Your task to perform on an android device: remove spam from my inbox in the gmail app Image 0: 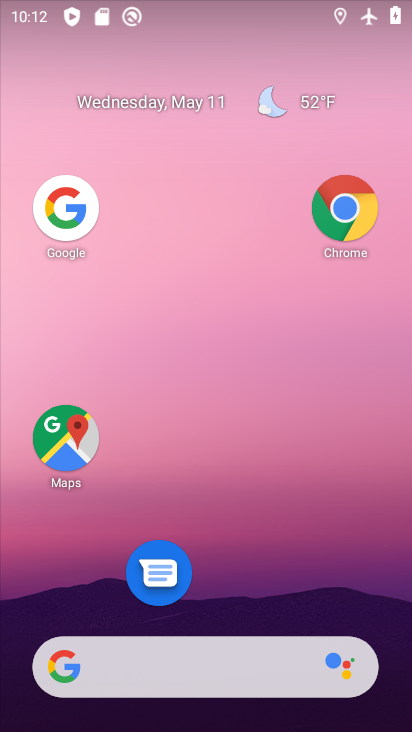
Step 0: drag from (195, 625) to (113, 9)
Your task to perform on an android device: remove spam from my inbox in the gmail app Image 1: 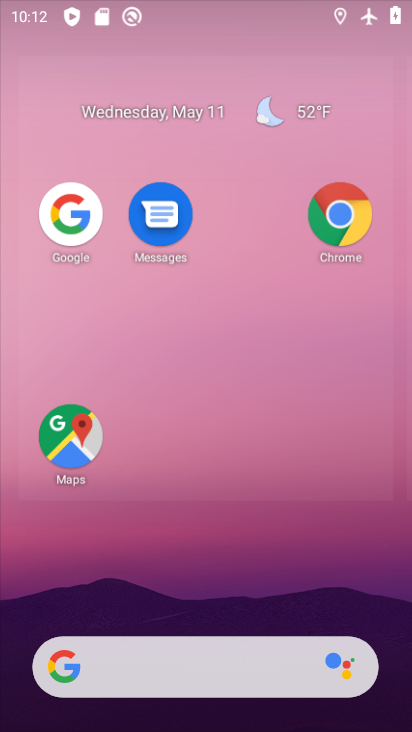
Step 1: click (237, 636)
Your task to perform on an android device: remove spam from my inbox in the gmail app Image 2: 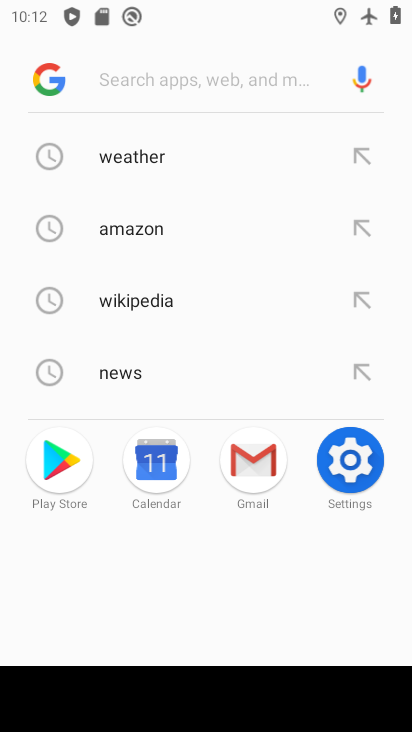
Step 2: press home button
Your task to perform on an android device: remove spam from my inbox in the gmail app Image 3: 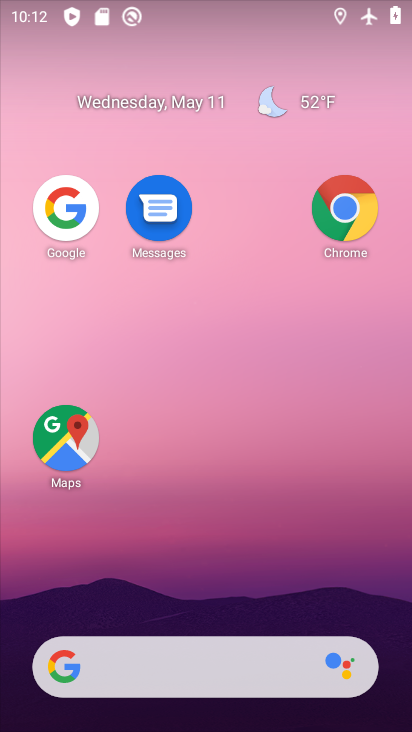
Step 3: drag from (207, 616) to (391, 406)
Your task to perform on an android device: remove spam from my inbox in the gmail app Image 4: 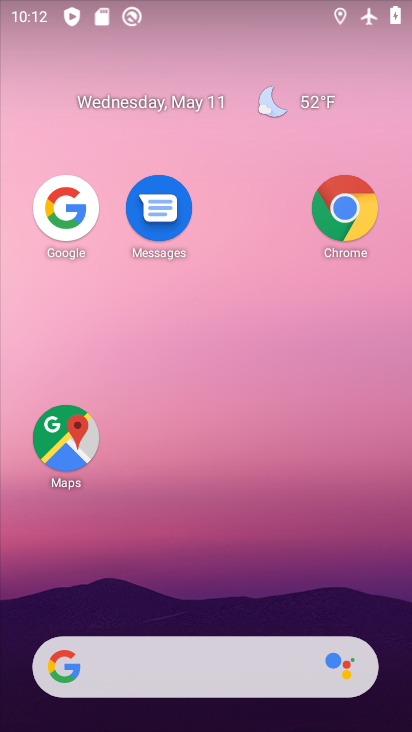
Step 4: drag from (236, 626) to (299, 9)
Your task to perform on an android device: remove spam from my inbox in the gmail app Image 5: 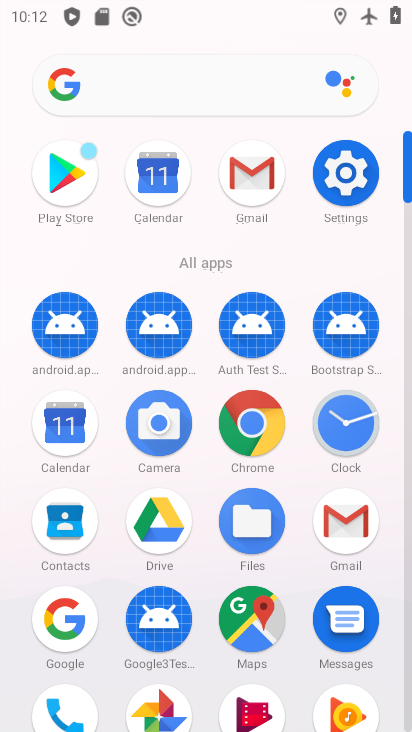
Step 5: click (365, 517)
Your task to perform on an android device: remove spam from my inbox in the gmail app Image 6: 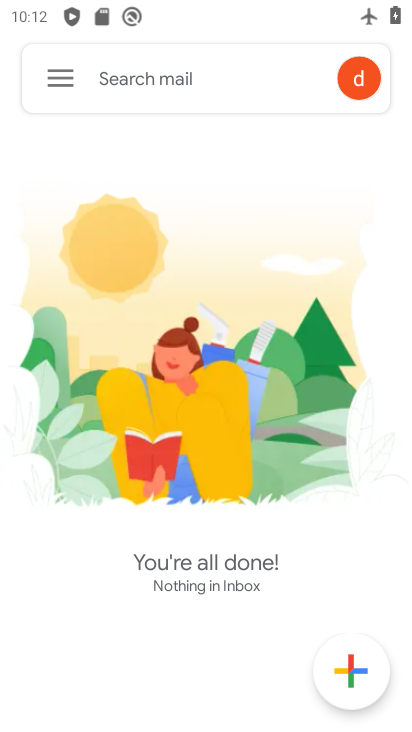
Step 6: click (60, 63)
Your task to perform on an android device: remove spam from my inbox in the gmail app Image 7: 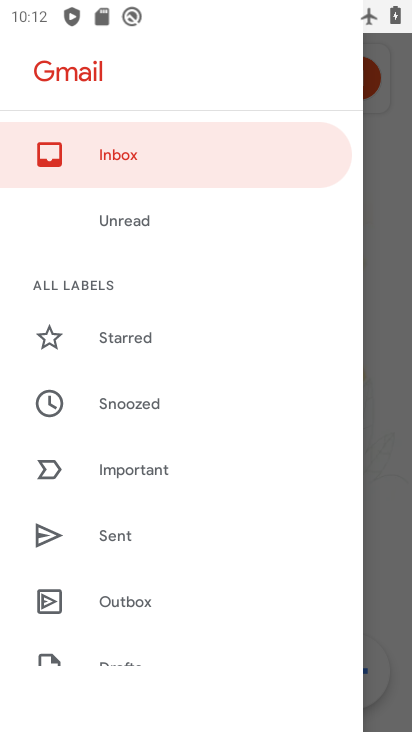
Step 7: drag from (167, 547) to (81, 110)
Your task to perform on an android device: remove spam from my inbox in the gmail app Image 8: 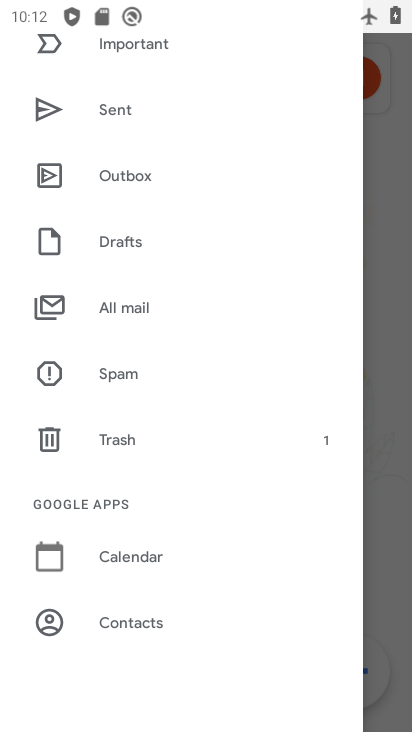
Step 8: click (117, 379)
Your task to perform on an android device: remove spam from my inbox in the gmail app Image 9: 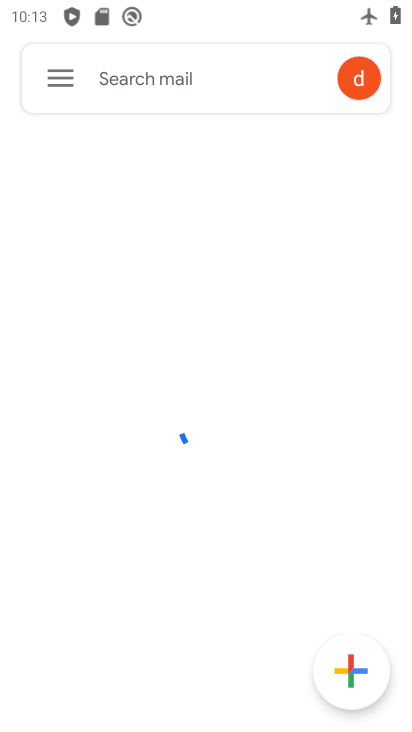
Step 9: task complete